Your task to perform on an android device: turn on bluetooth scan Image 0: 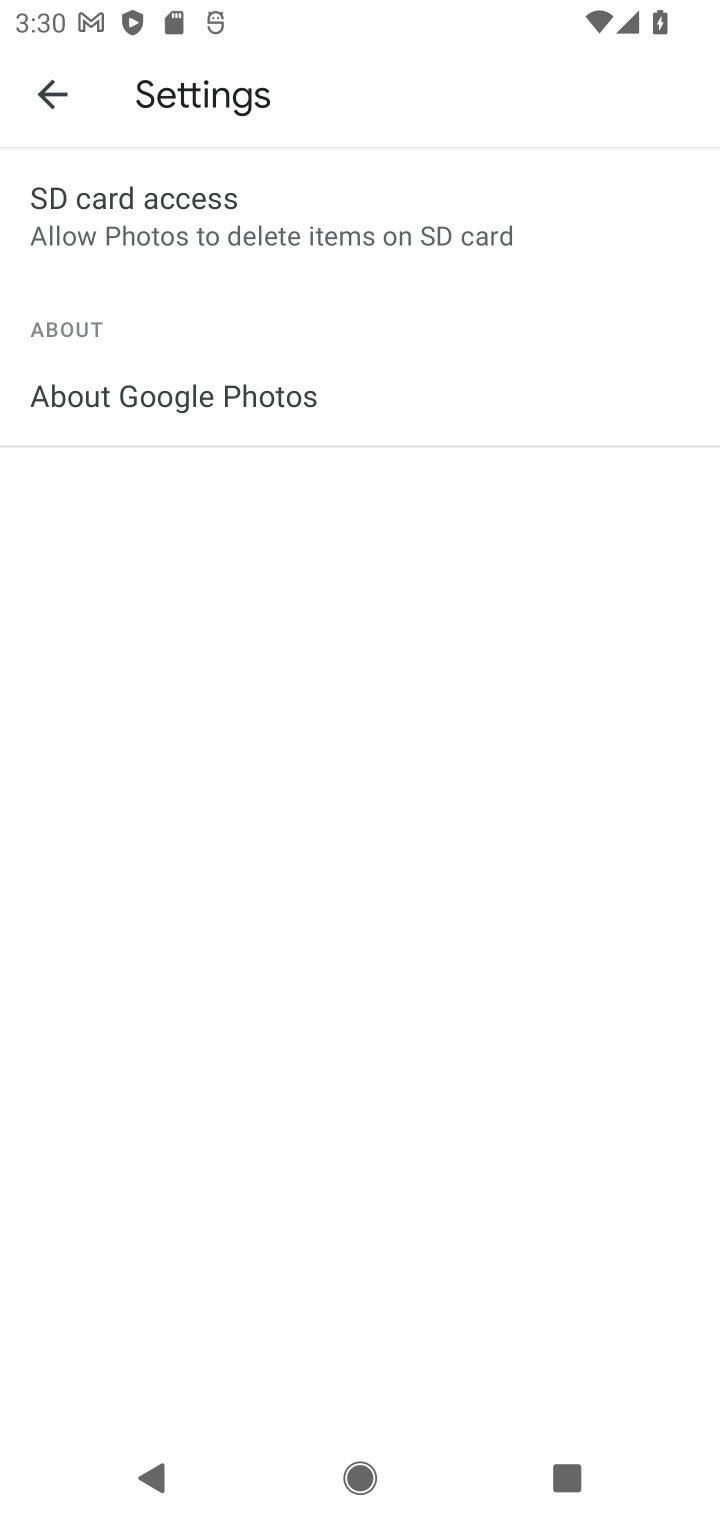
Step 0: press home button
Your task to perform on an android device: turn on bluetooth scan Image 1: 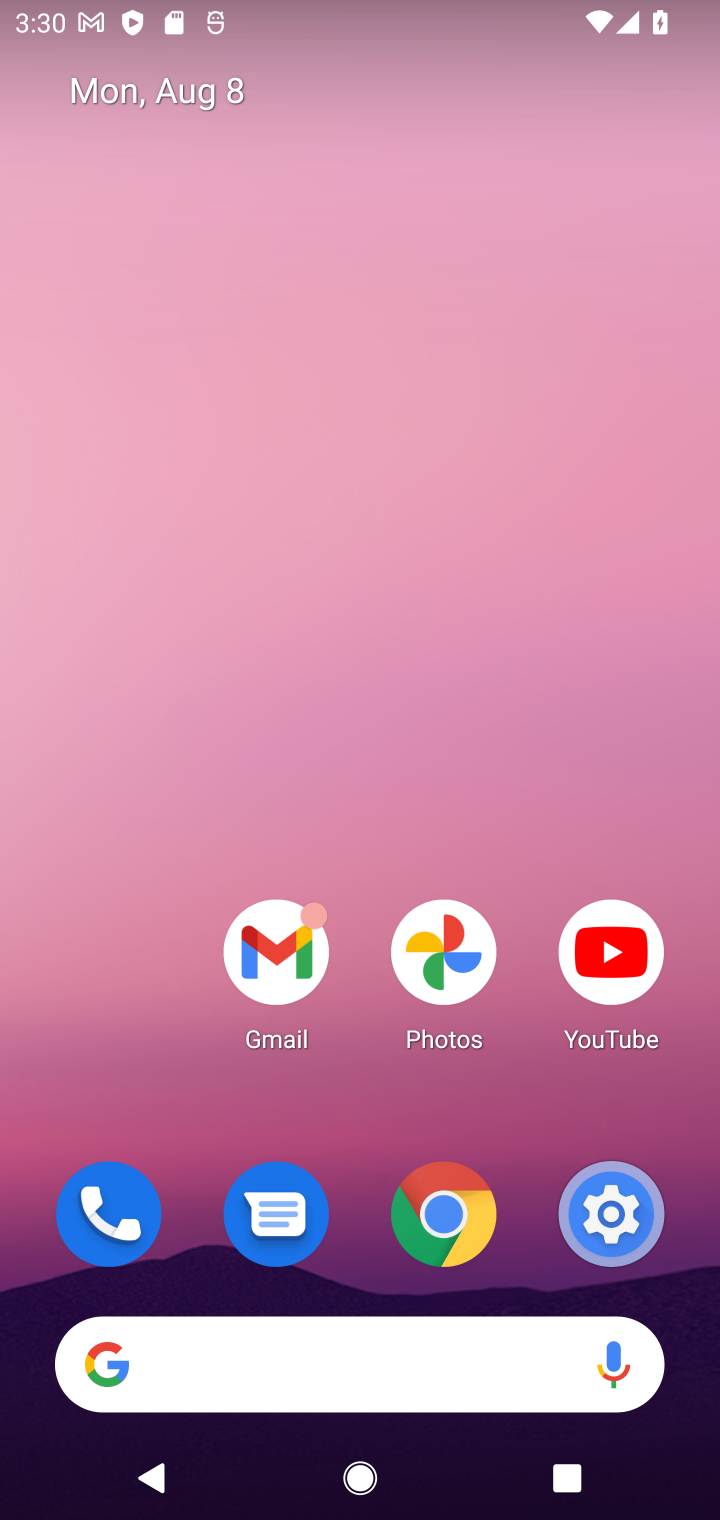
Step 1: drag from (347, 1304) to (347, 688)
Your task to perform on an android device: turn on bluetooth scan Image 2: 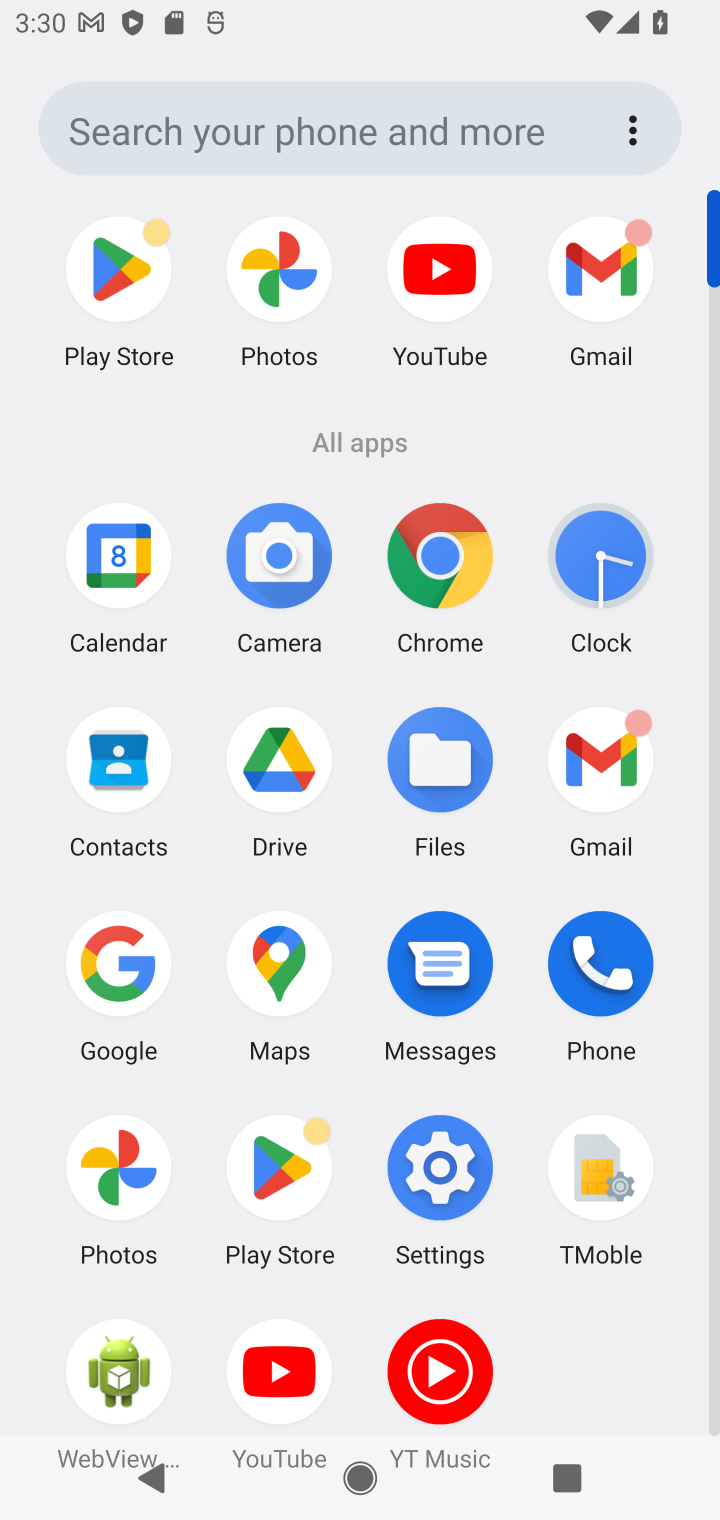
Step 2: click (431, 1154)
Your task to perform on an android device: turn on bluetooth scan Image 3: 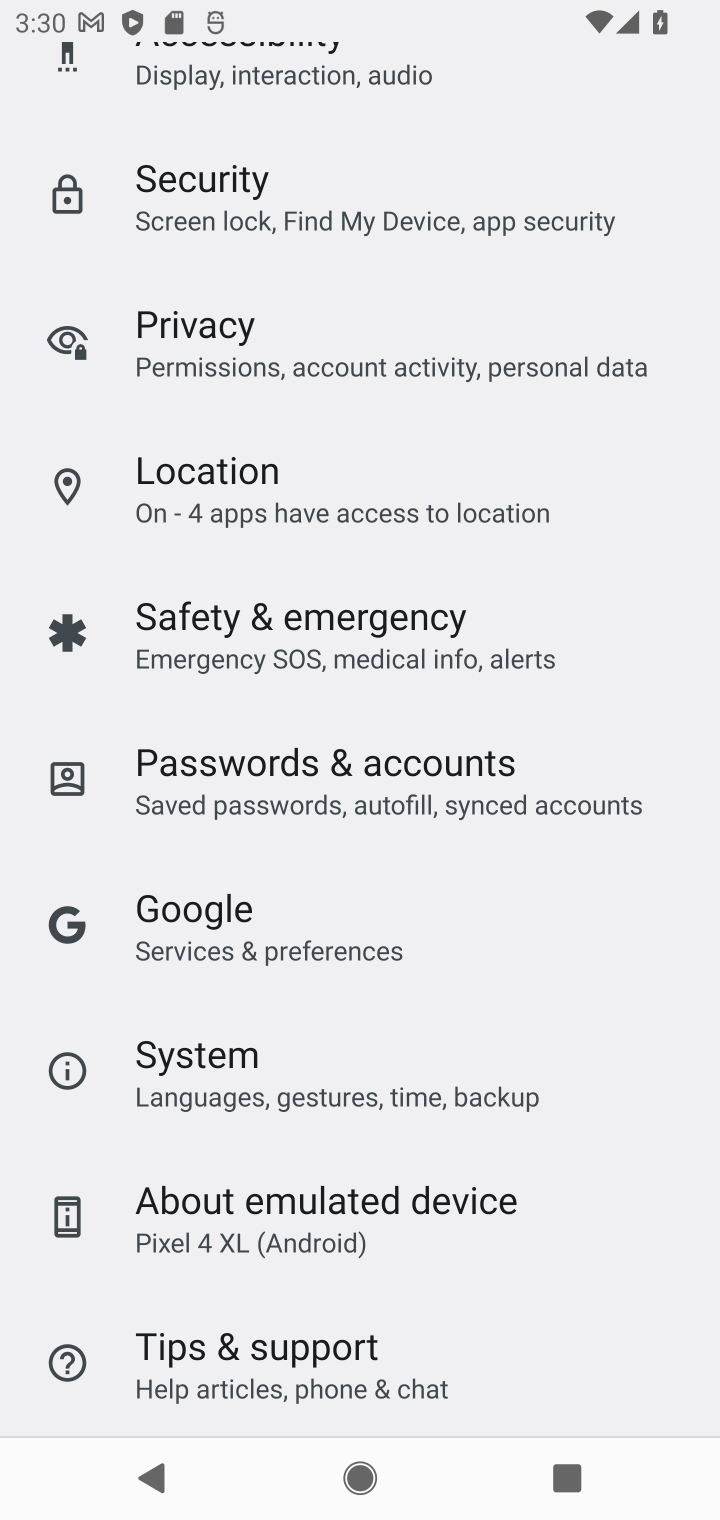
Step 3: click (241, 478)
Your task to perform on an android device: turn on bluetooth scan Image 4: 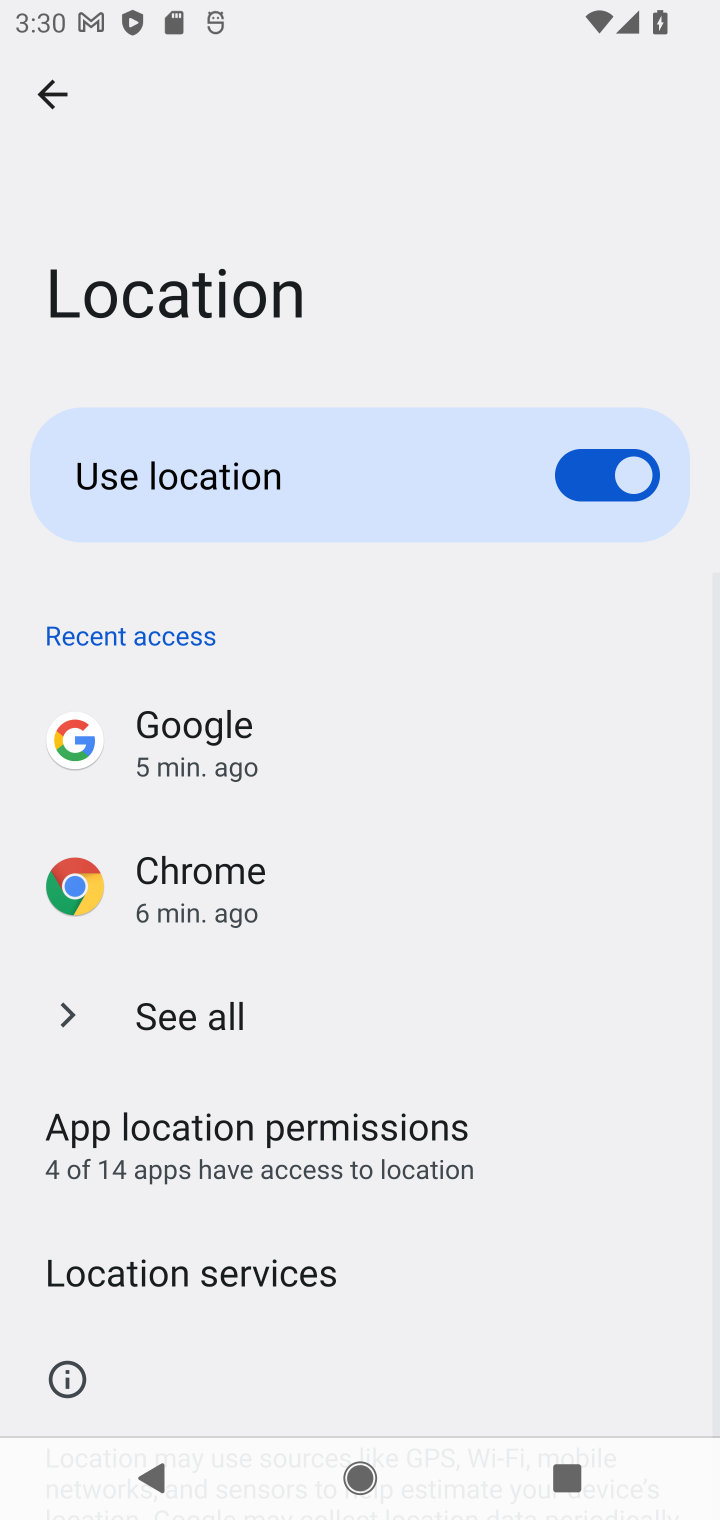
Step 4: drag from (212, 878) to (212, 680)
Your task to perform on an android device: turn on bluetooth scan Image 5: 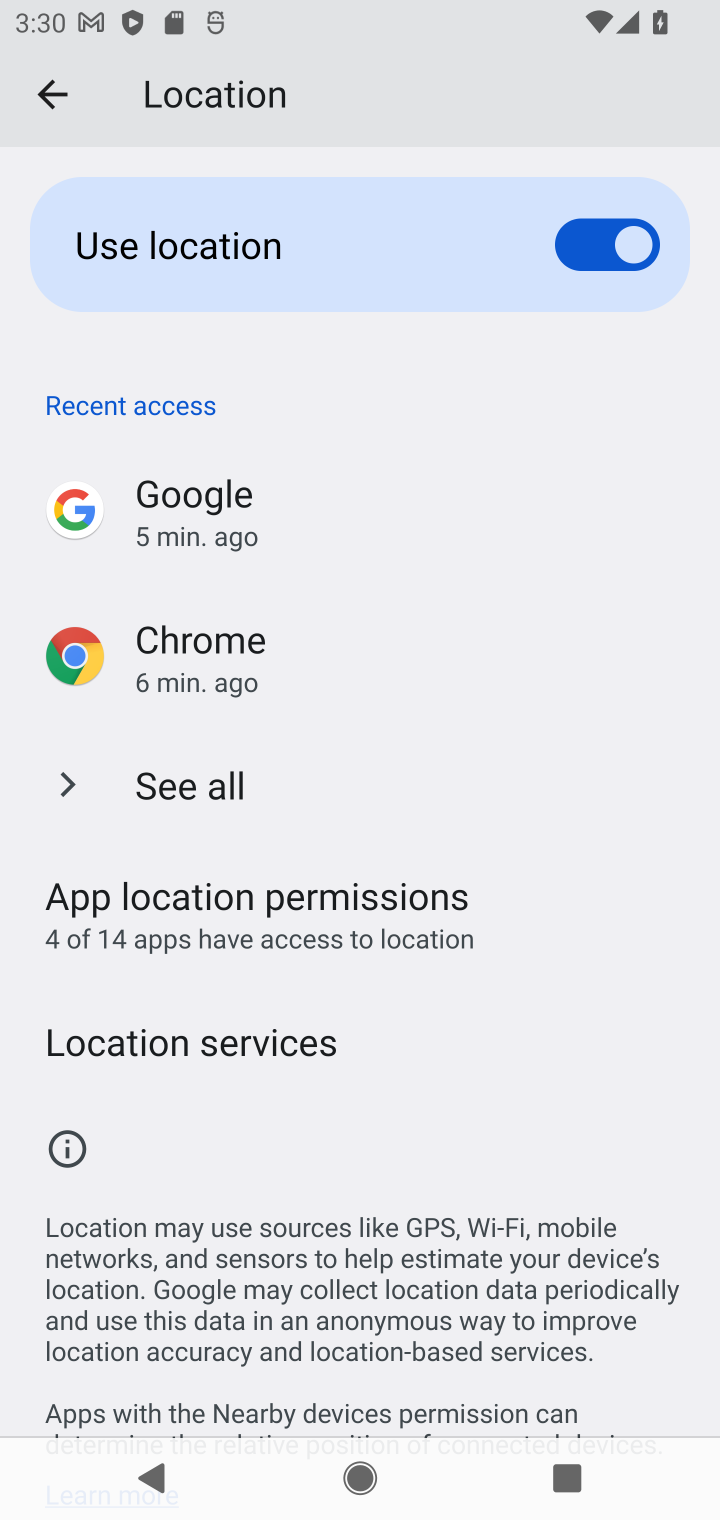
Step 5: drag from (206, 1272) to (225, 645)
Your task to perform on an android device: turn on bluetooth scan Image 6: 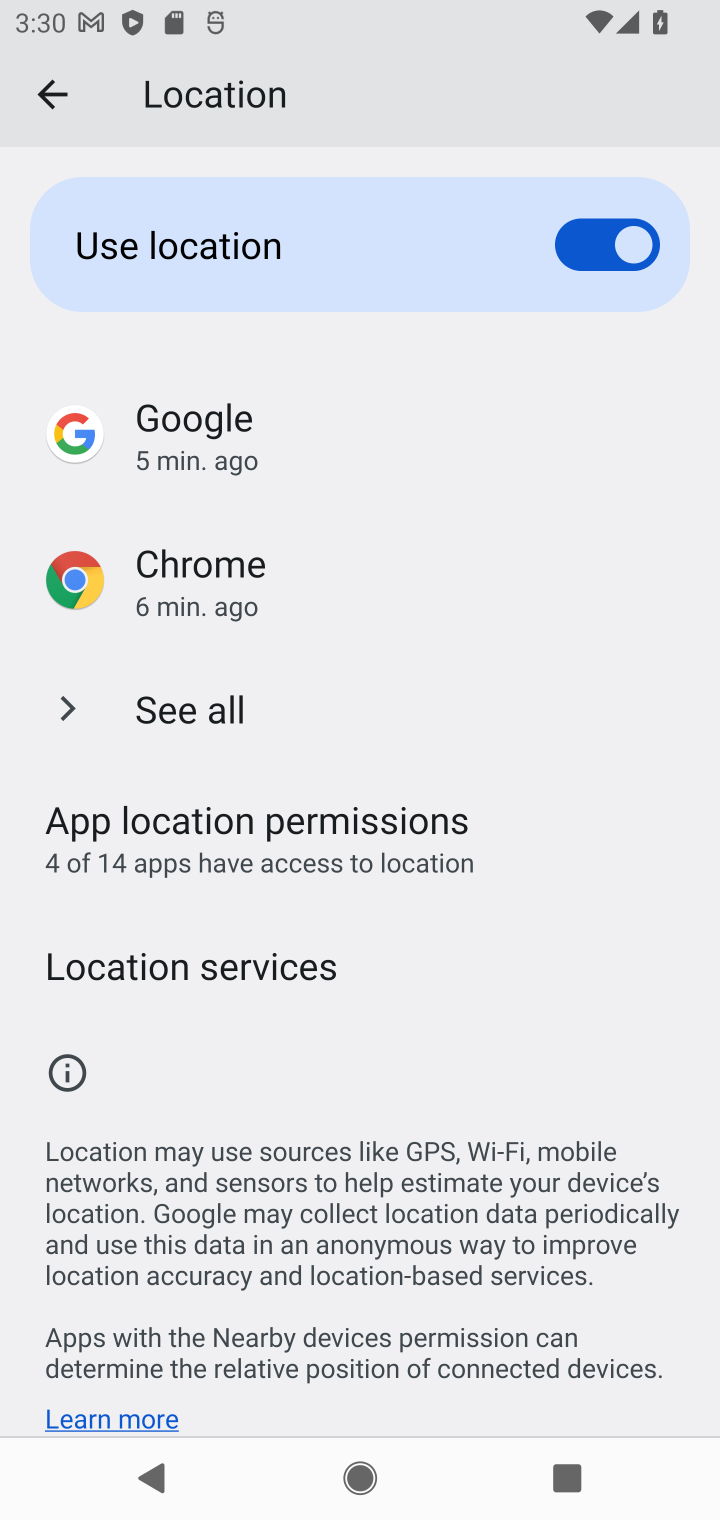
Step 6: drag from (298, 1337) to (256, 600)
Your task to perform on an android device: turn on bluetooth scan Image 7: 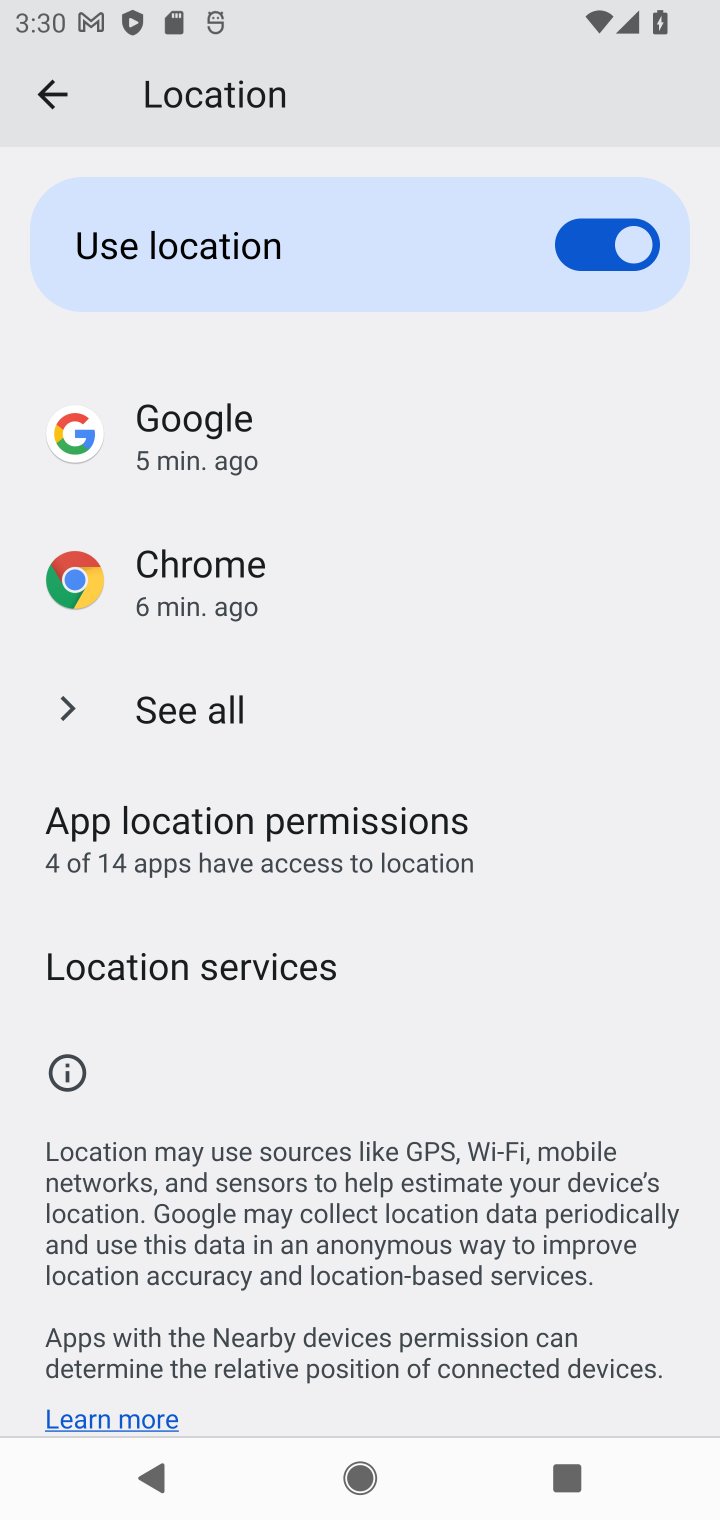
Step 7: click (126, 959)
Your task to perform on an android device: turn on bluetooth scan Image 8: 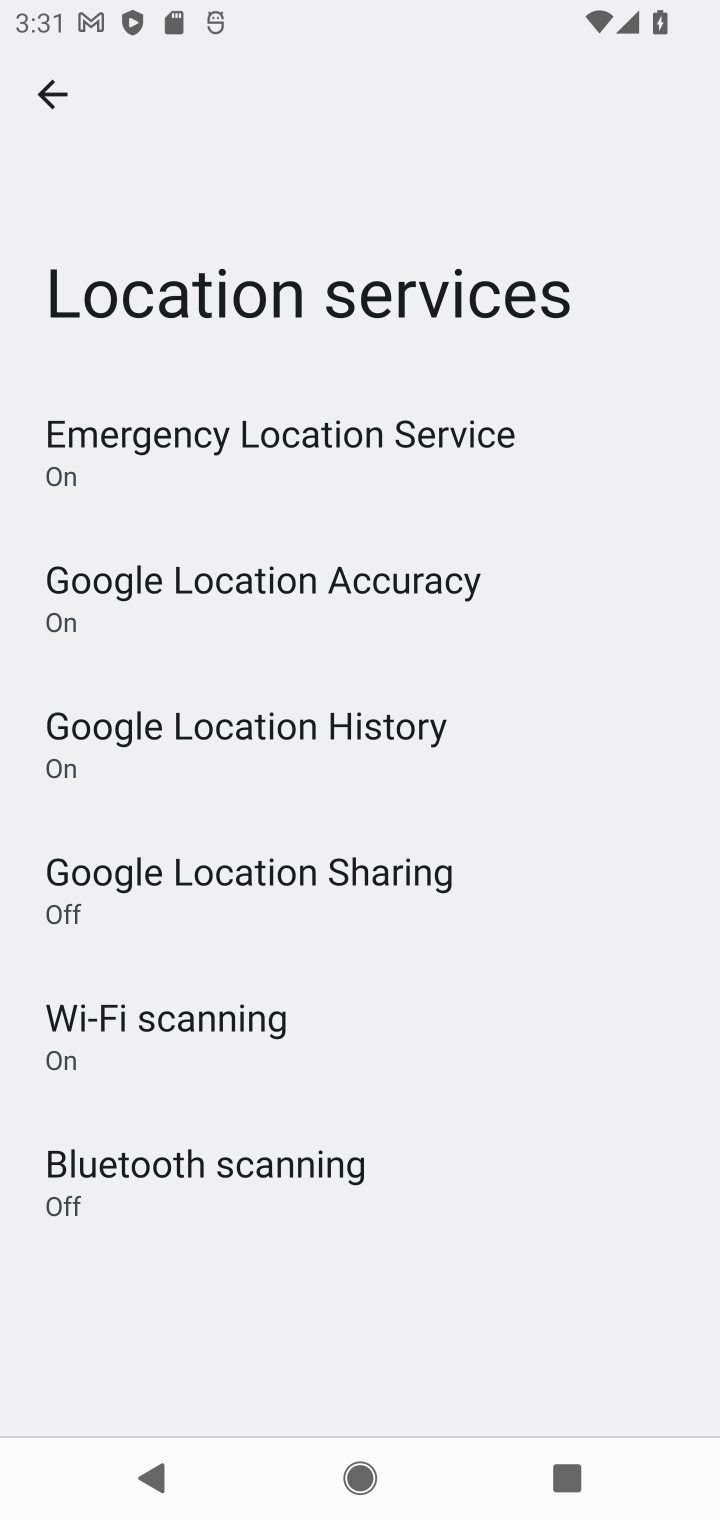
Step 8: click (233, 1183)
Your task to perform on an android device: turn on bluetooth scan Image 9: 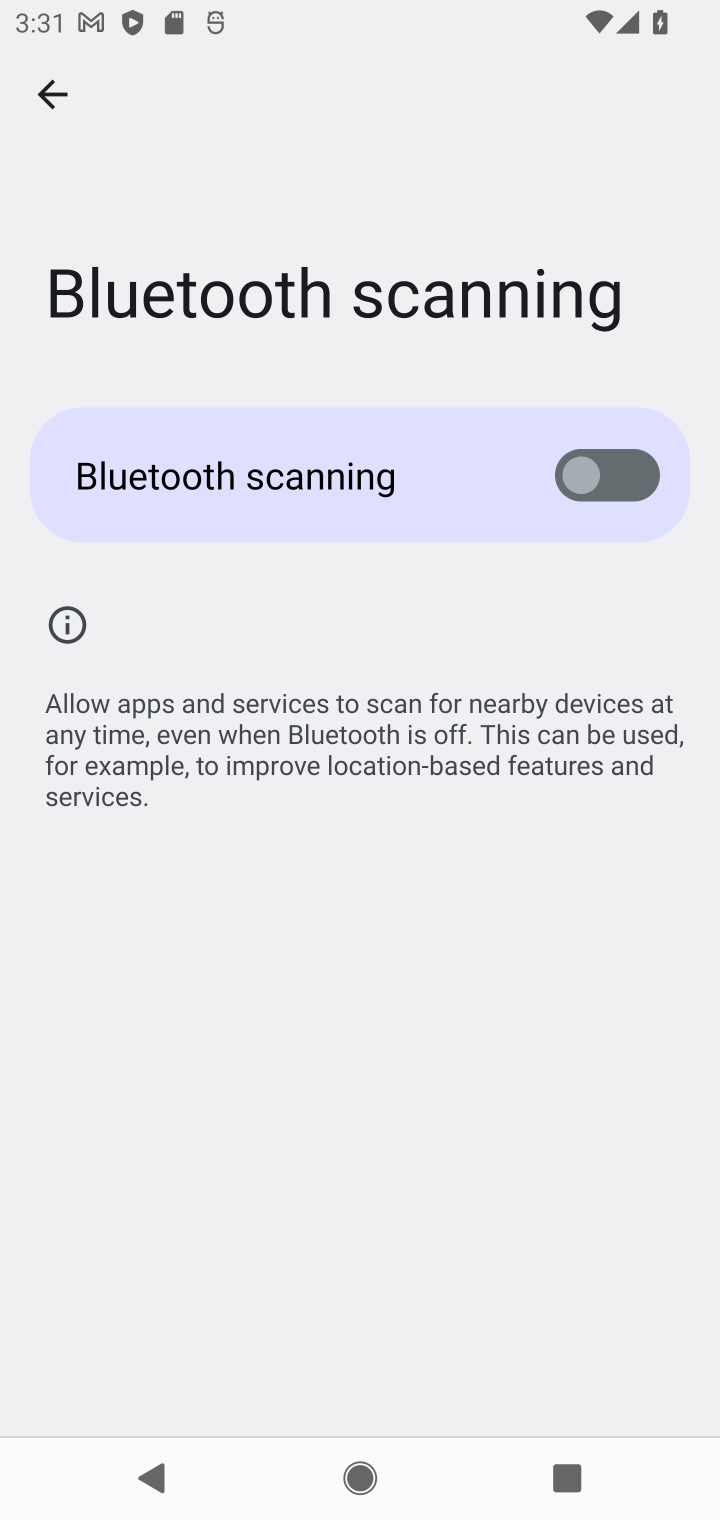
Step 9: click (624, 474)
Your task to perform on an android device: turn on bluetooth scan Image 10: 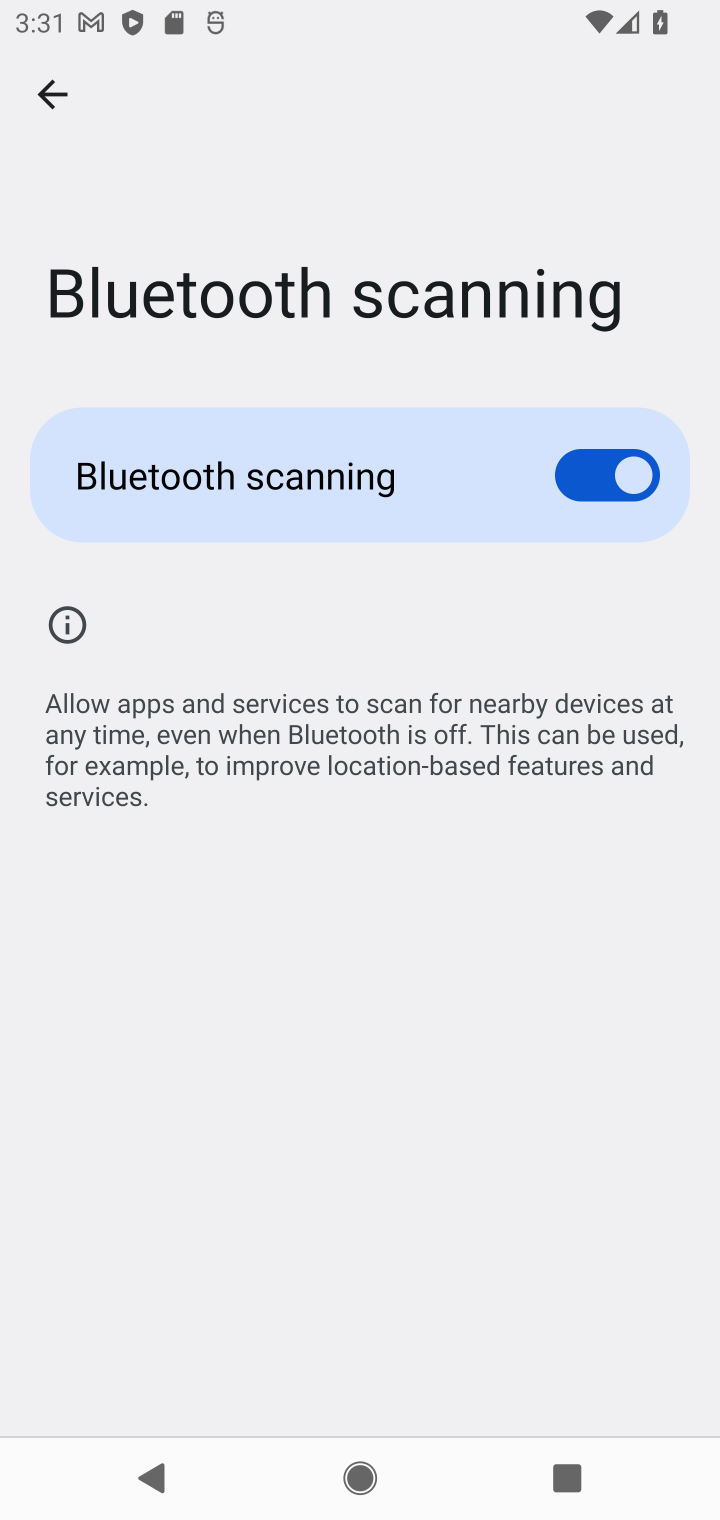
Step 10: task complete